Your task to perform on an android device: Open Google Chrome and click the shortcut for Amazon.com Image 0: 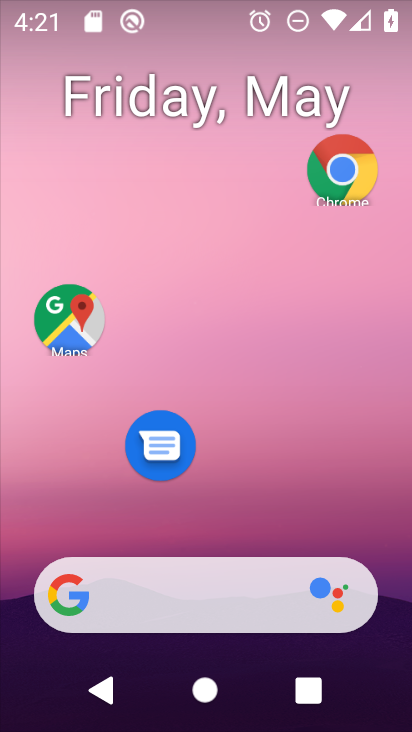
Step 0: drag from (337, 527) to (269, 19)
Your task to perform on an android device: Open Google Chrome and click the shortcut for Amazon.com Image 1: 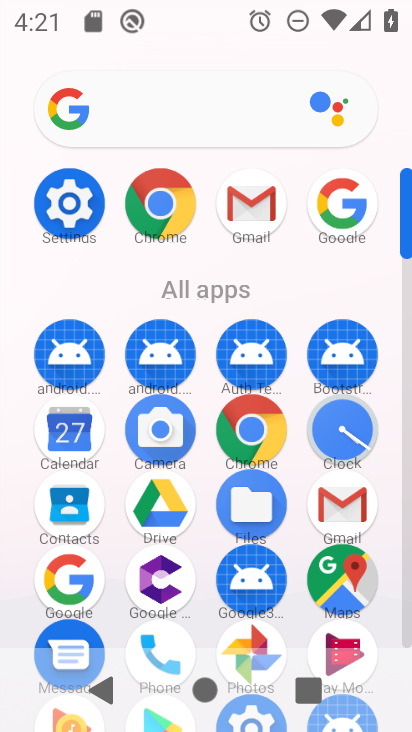
Step 1: click (156, 206)
Your task to perform on an android device: Open Google Chrome and click the shortcut for Amazon.com Image 2: 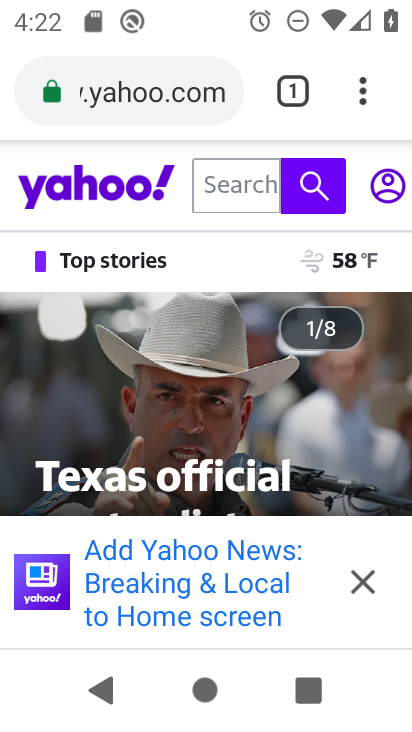
Step 2: press back button
Your task to perform on an android device: Open Google Chrome and click the shortcut for Amazon.com Image 3: 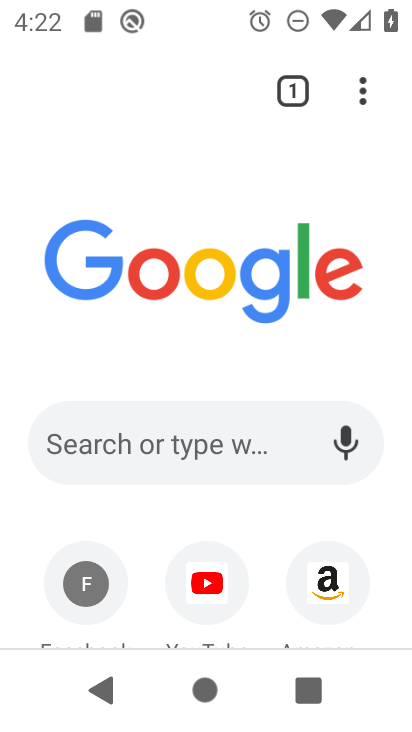
Step 3: click (326, 586)
Your task to perform on an android device: Open Google Chrome and click the shortcut for Amazon.com Image 4: 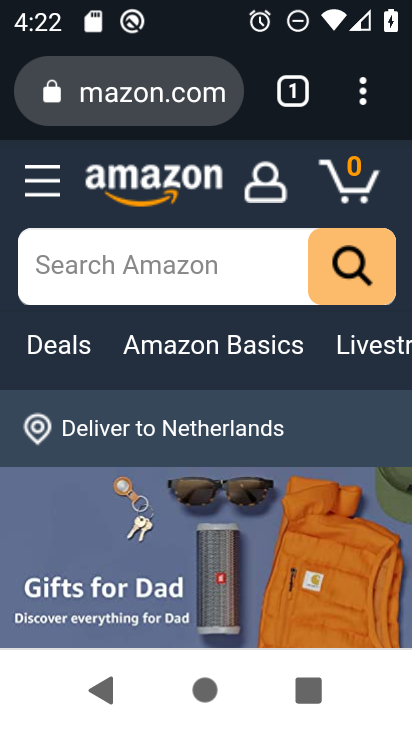
Step 4: task complete